Your task to perform on an android device: Open notification settings Image 0: 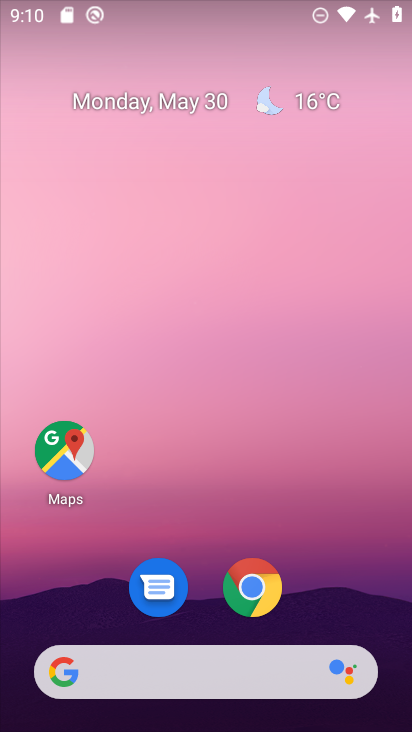
Step 0: drag from (194, 674) to (289, 63)
Your task to perform on an android device: Open notification settings Image 1: 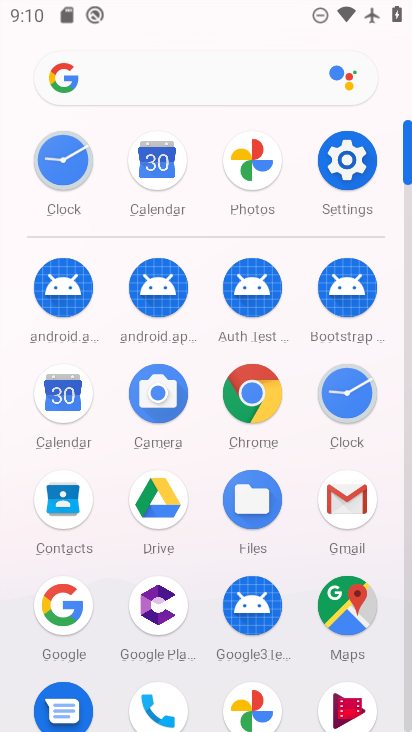
Step 1: click (359, 169)
Your task to perform on an android device: Open notification settings Image 2: 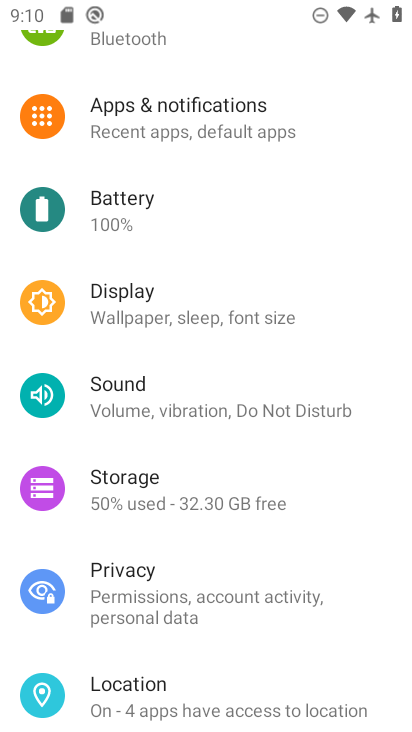
Step 2: click (212, 121)
Your task to perform on an android device: Open notification settings Image 3: 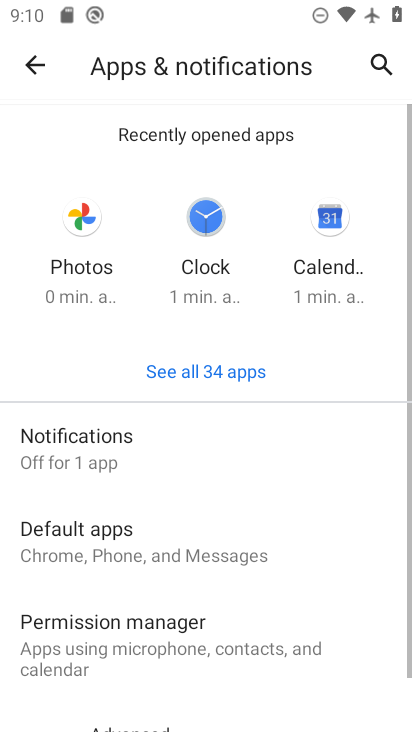
Step 3: click (111, 438)
Your task to perform on an android device: Open notification settings Image 4: 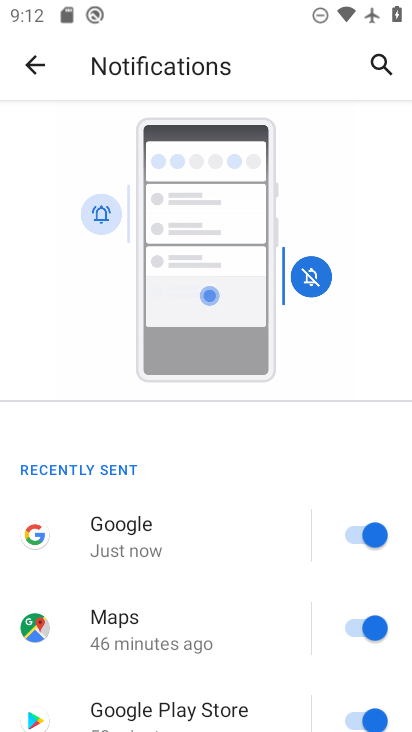
Step 4: task complete